Your task to perform on an android device: Go to network settings Image 0: 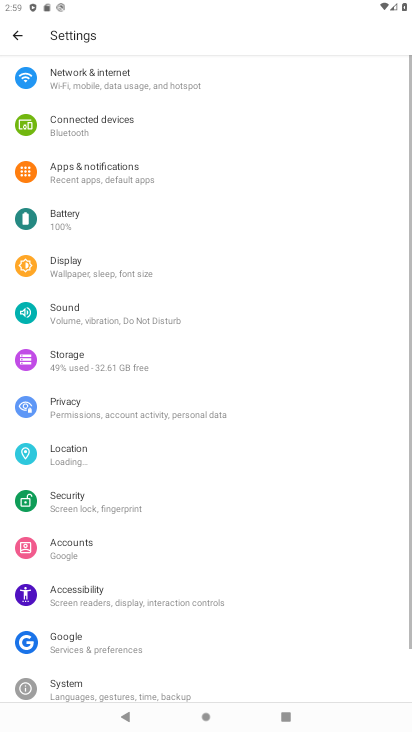
Step 0: press home button
Your task to perform on an android device: Go to network settings Image 1: 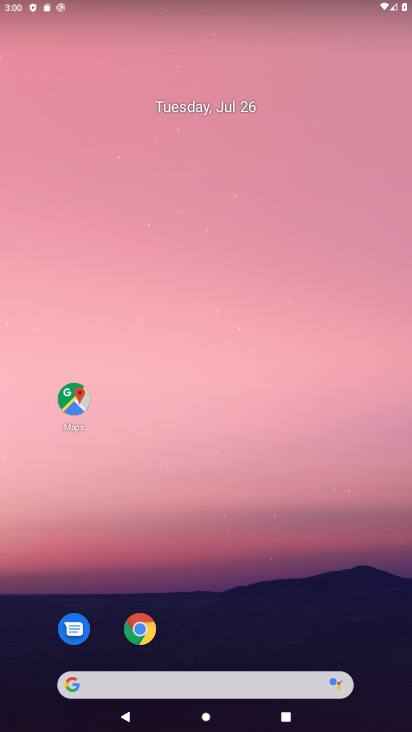
Step 1: drag from (263, 589) to (263, 180)
Your task to perform on an android device: Go to network settings Image 2: 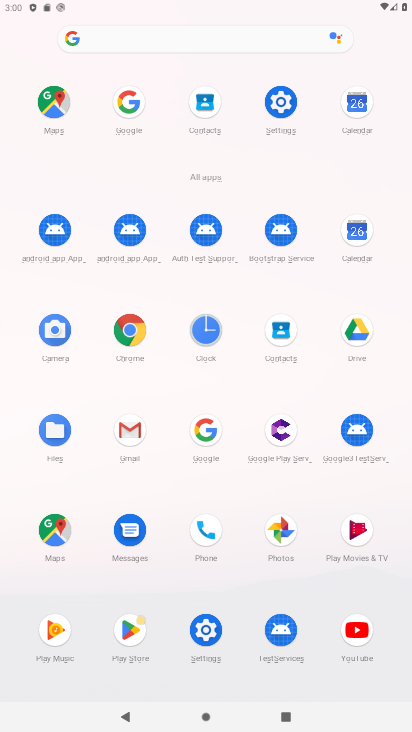
Step 2: click (279, 102)
Your task to perform on an android device: Go to network settings Image 3: 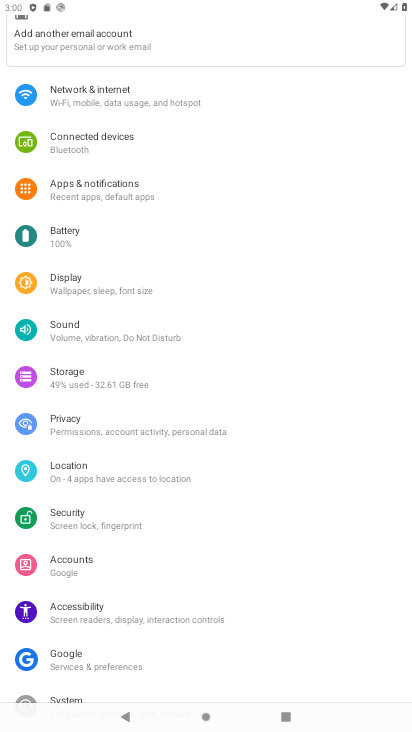
Step 3: click (100, 93)
Your task to perform on an android device: Go to network settings Image 4: 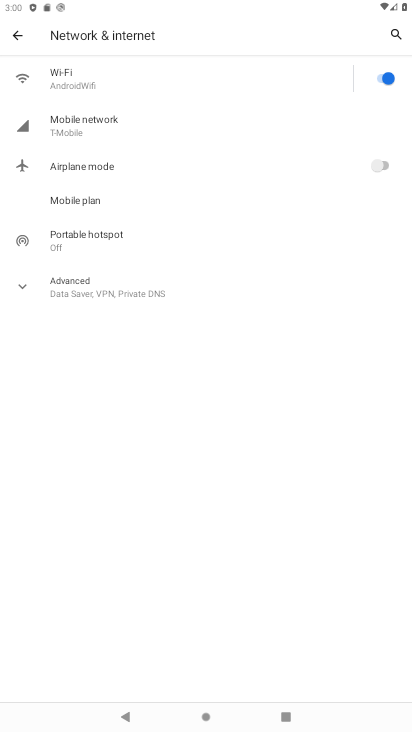
Step 4: click (86, 115)
Your task to perform on an android device: Go to network settings Image 5: 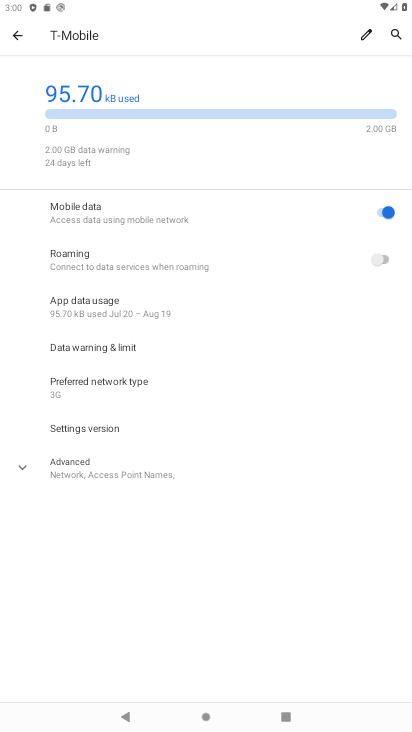
Step 5: task complete